Your task to perform on an android device: open device folders in google photos Image 0: 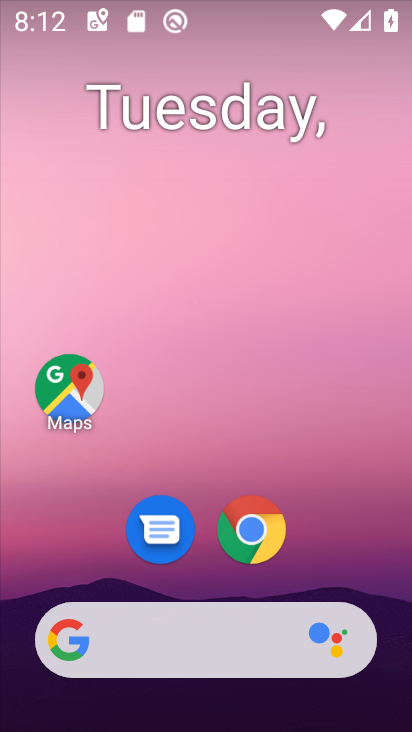
Step 0: drag from (220, 599) to (277, 50)
Your task to perform on an android device: open device folders in google photos Image 1: 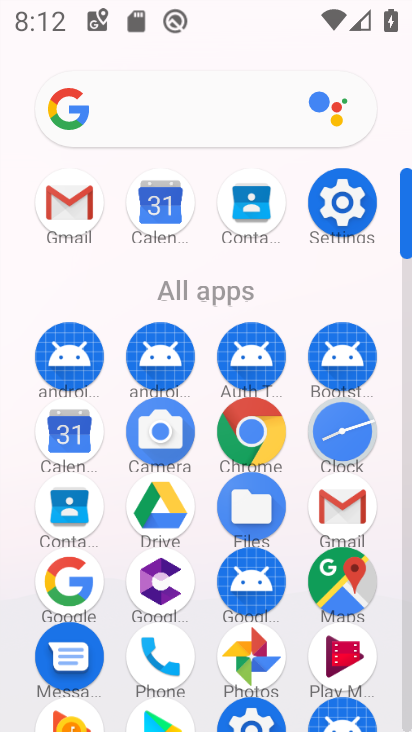
Step 1: click (247, 654)
Your task to perform on an android device: open device folders in google photos Image 2: 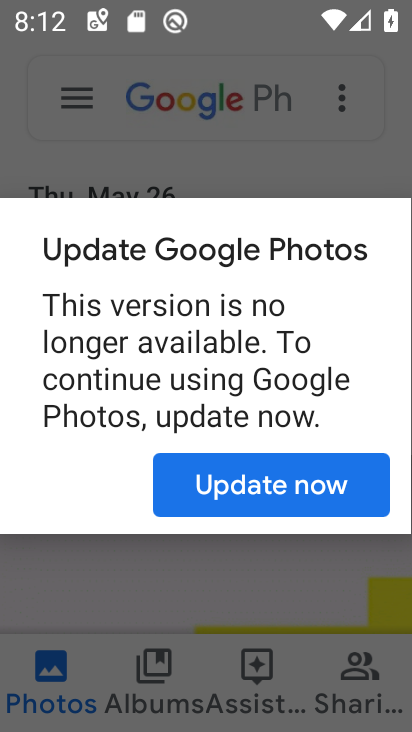
Step 2: click (241, 570)
Your task to perform on an android device: open device folders in google photos Image 3: 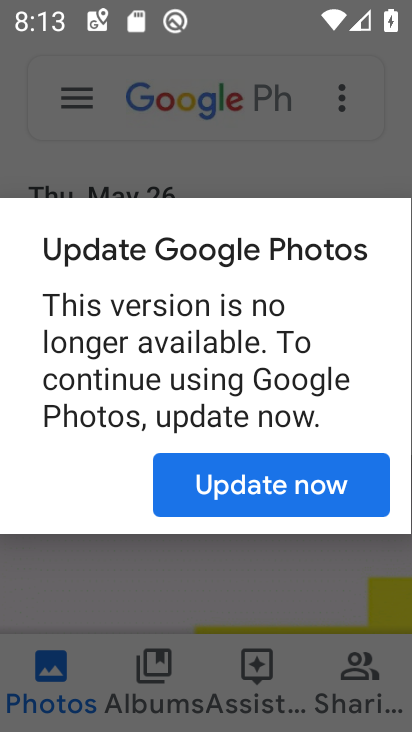
Step 3: press back button
Your task to perform on an android device: open device folders in google photos Image 4: 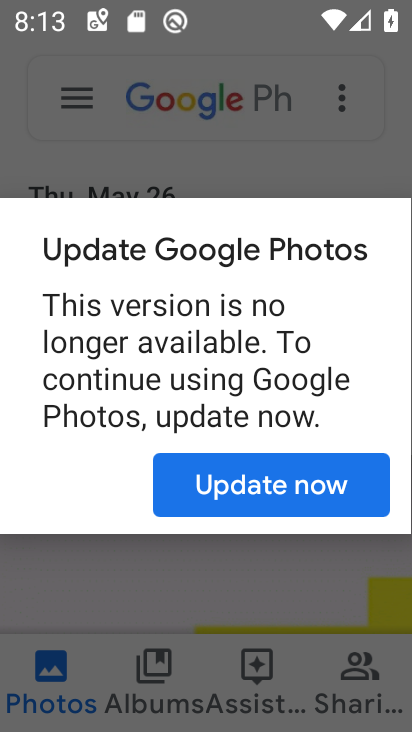
Step 4: click (278, 498)
Your task to perform on an android device: open device folders in google photos Image 5: 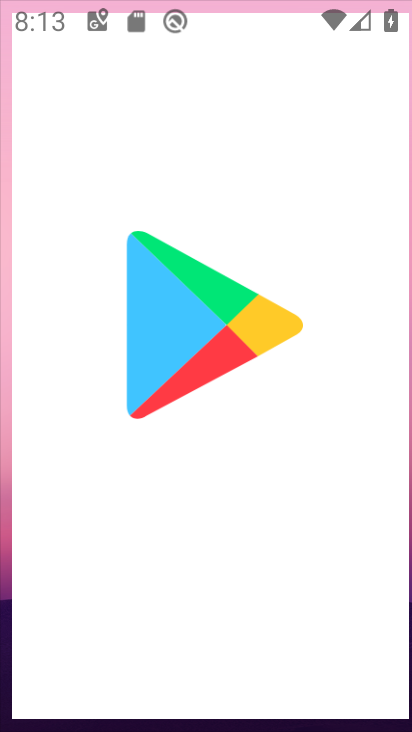
Step 5: click (69, 77)
Your task to perform on an android device: open device folders in google photos Image 6: 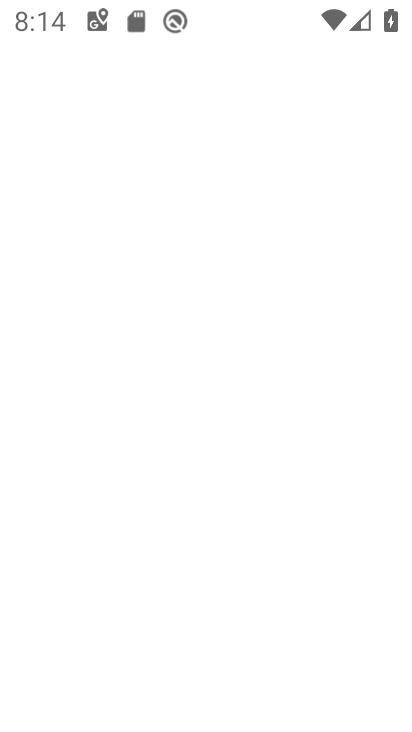
Step 6: press back button
Your task to perform on an android device: open device folders in google photos Image 7: 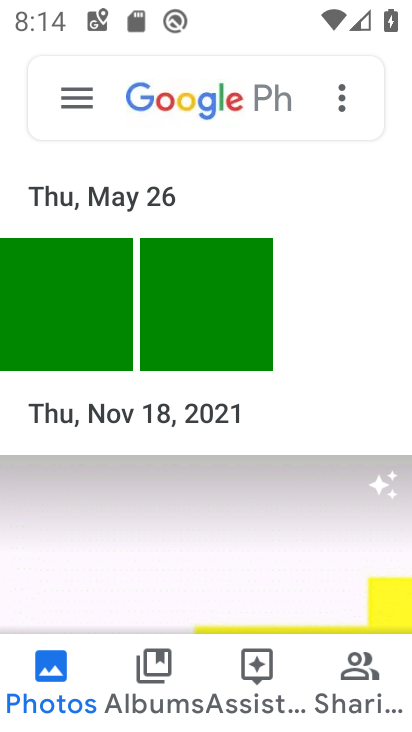
Step 7: click (73, 95)
Your task to perform on an android device: open device folders in google photos Image 8: 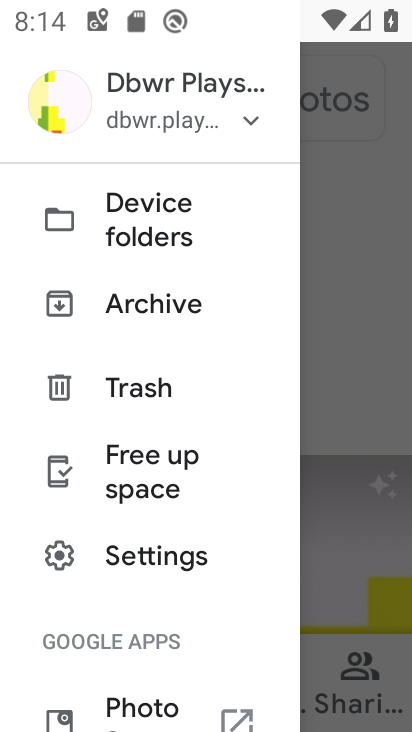
Step 8: click (153, 211)
Your task to perform on an android device: open device folders in google photos Image 9: 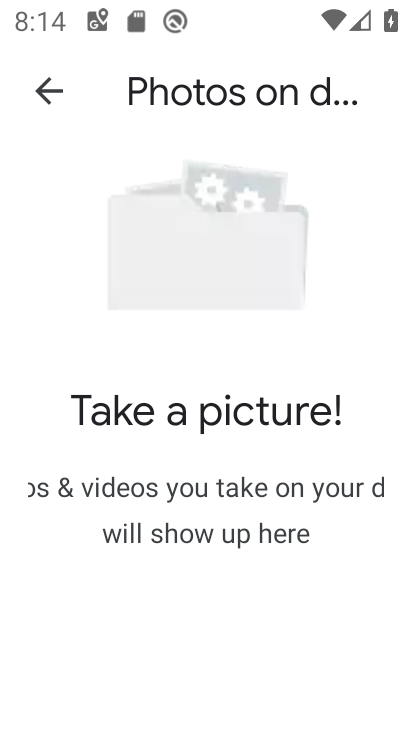
Step 9: task complete